Your task to perform on an android device: Open Android settings Image 0: 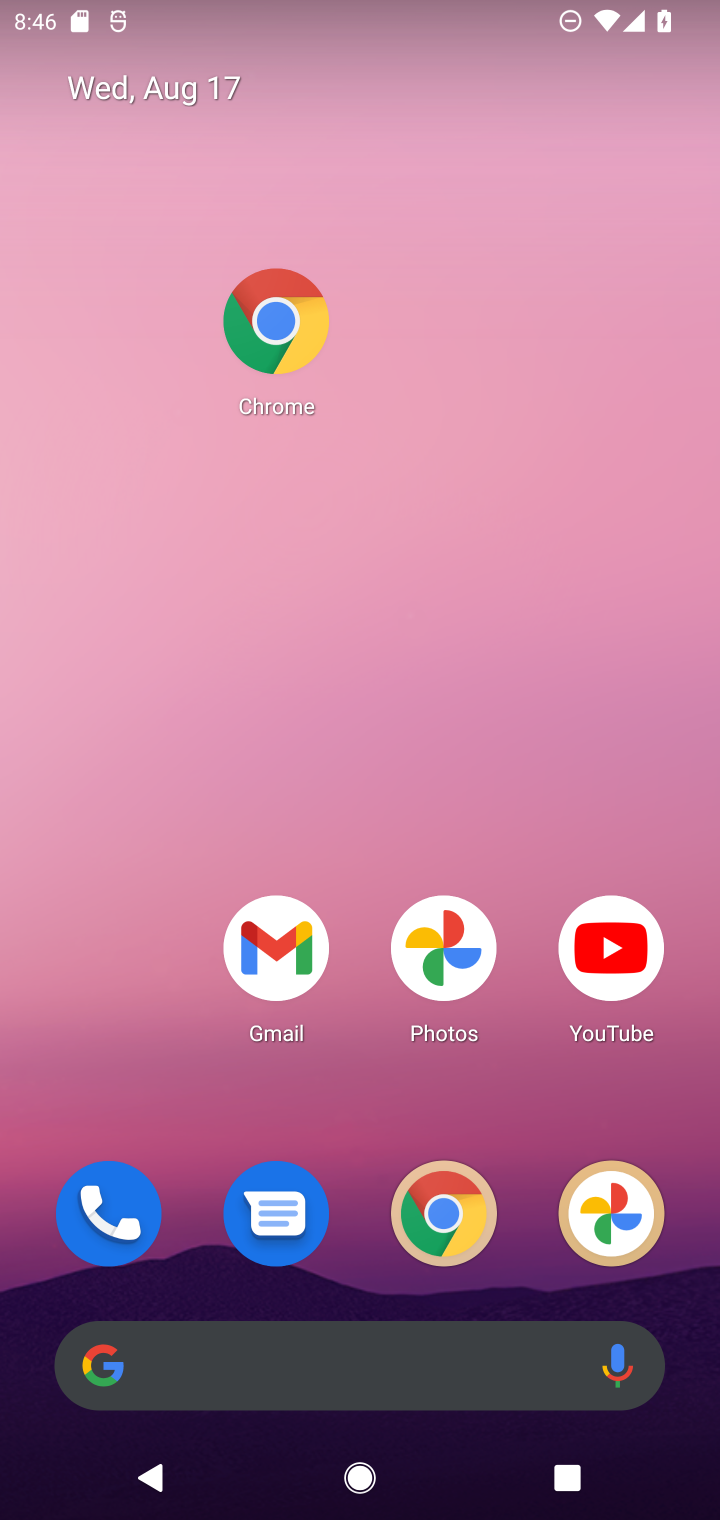
Step 0: drag from (357, 1316) to (471, 321)
Your task to perform on an android device: Open Android settings Image 1: 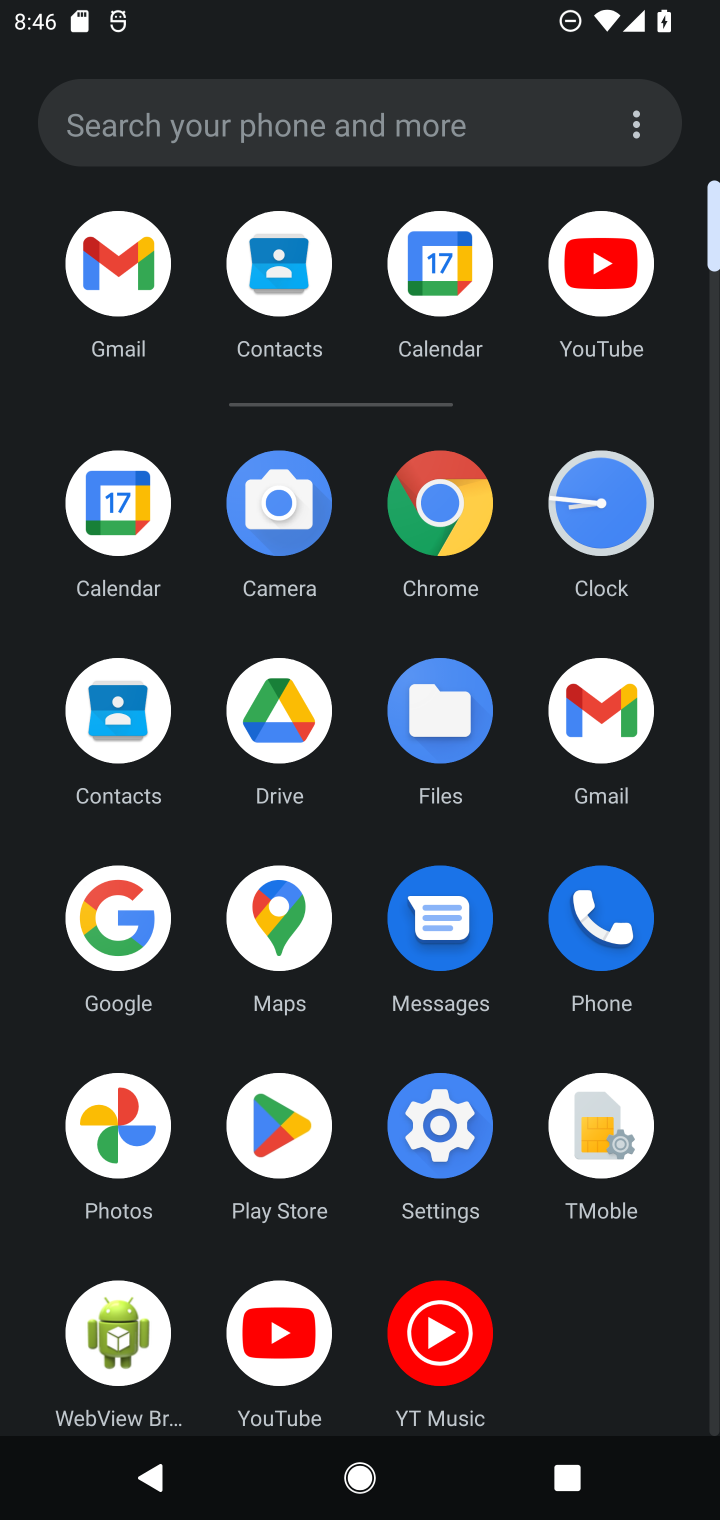
Step 1: click (441, 1099)
Your task to perform on an android device: Open Android settings Image 2: 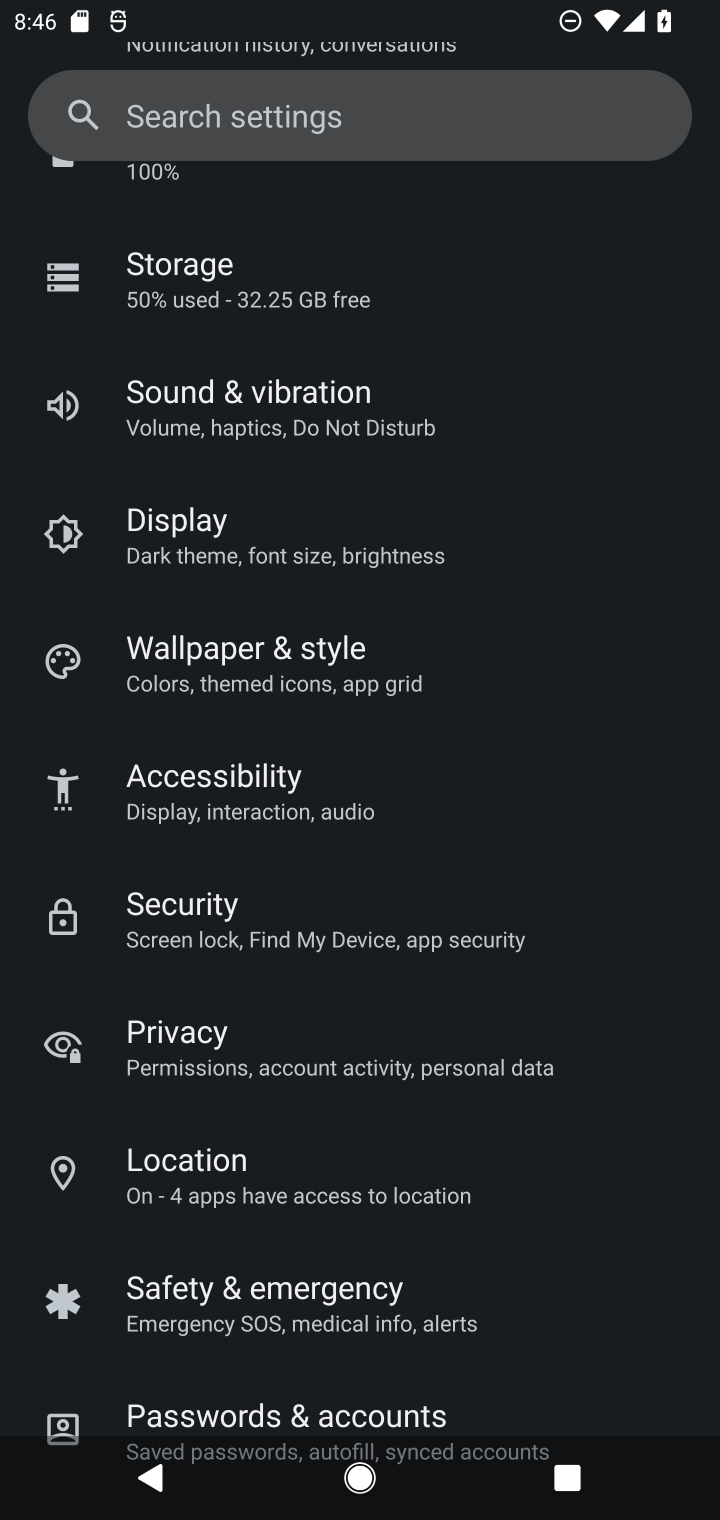
Step 2: task complete